Your task to perform on an android device: Go to display settings Image 0: 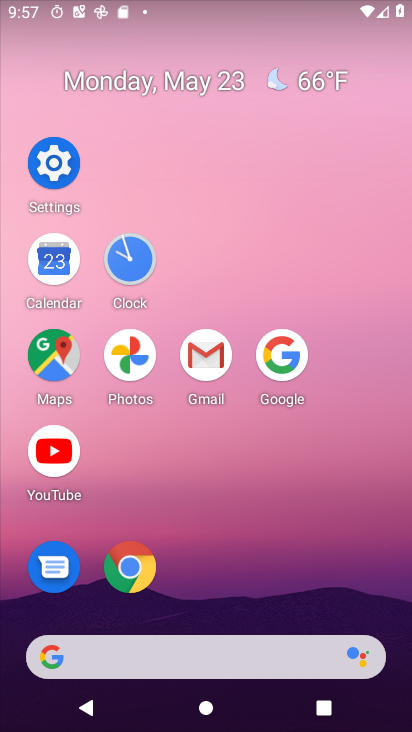
Step 0: click (57, 176)
Your task to perform on an android device: Go to display settings Image 1: 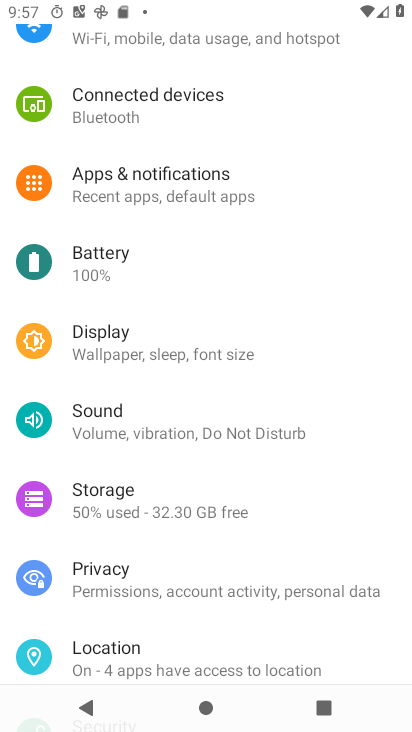
Step 1: click (135, 352)
Your task to perform on an android device: Go to display settings Image 2: 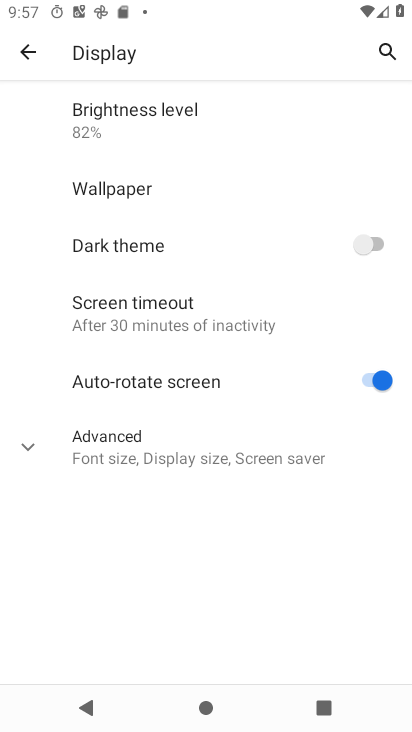
Step 2: task complete